Your task to perform on an android device: add a label to a message in the gmail app Image 0: 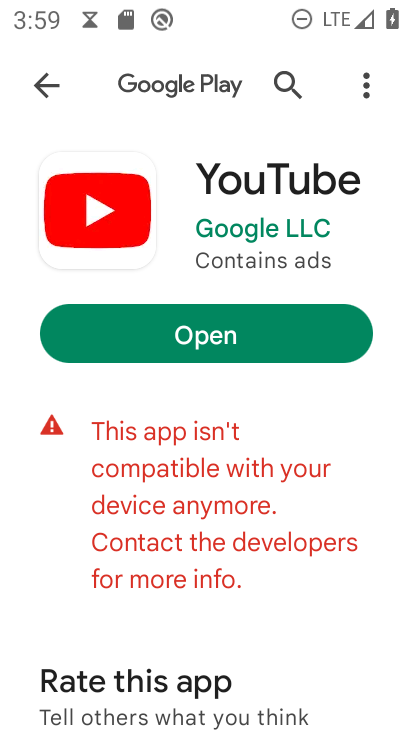
Step 0: press home button
Your task to perform on an android device: add a label to a message in the gmail app Image 1: 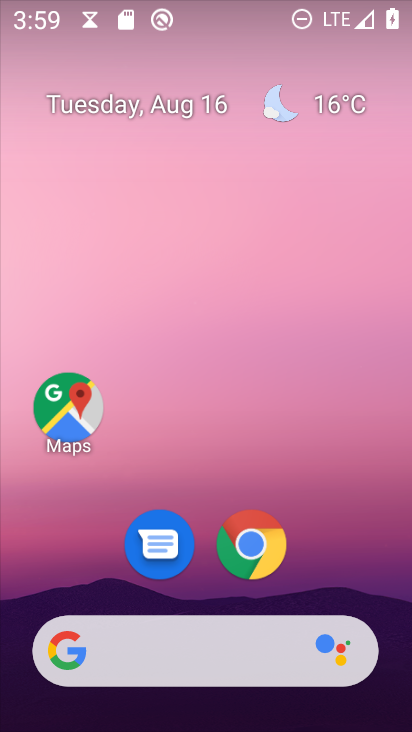
Step 1: drag from (187, 644) to (217, 123)
Your task to perform on an android device: add a label to a message in the gmail app Image 2: 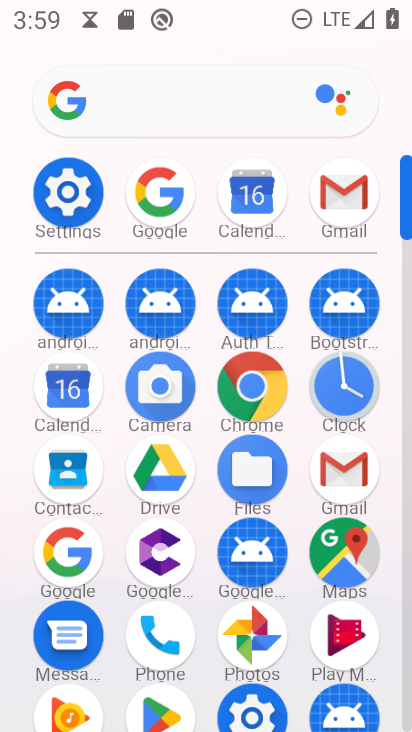
Step 2: click (341, 191)
Your task to perform on an android device: add a label to a message in the gmail app Image 3: 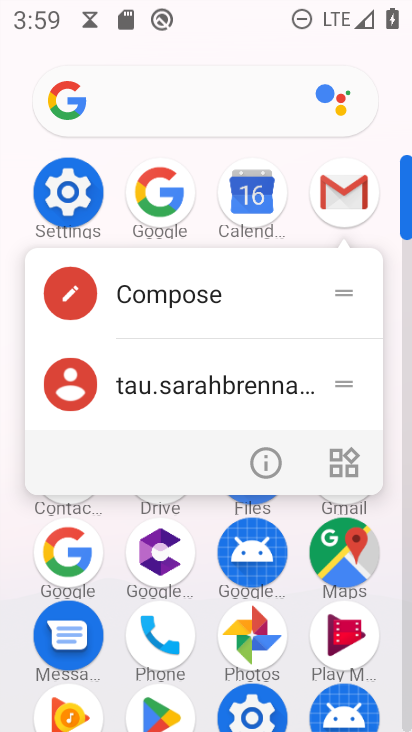
Step 3: click (341, 191)
Your task to perform on an android device: add a label to a message in the gmail app Image 4: 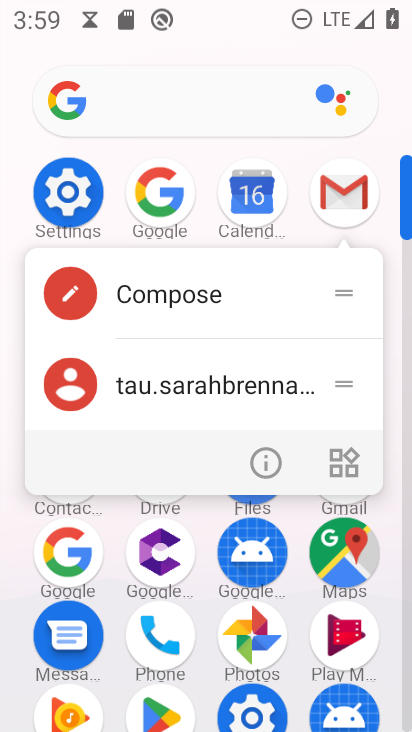
Step 4: click (341, 191)
Your task to perform on an android device: add a label to a message in the gmail app Image 5: 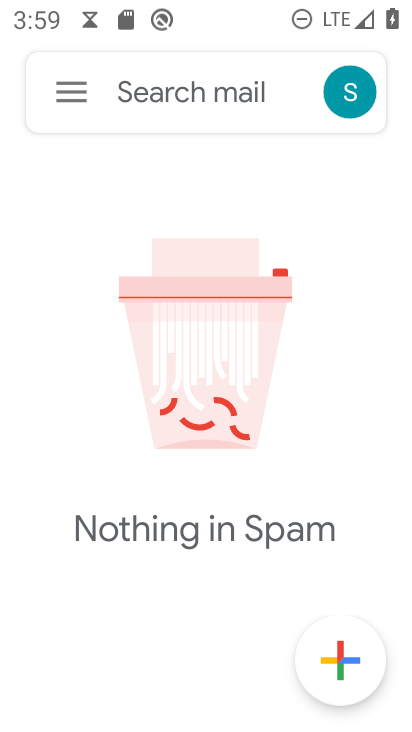
Step 5: click (80, 97)
Your task to perform on an android device: add a label to a message in the gmail app Image 6: 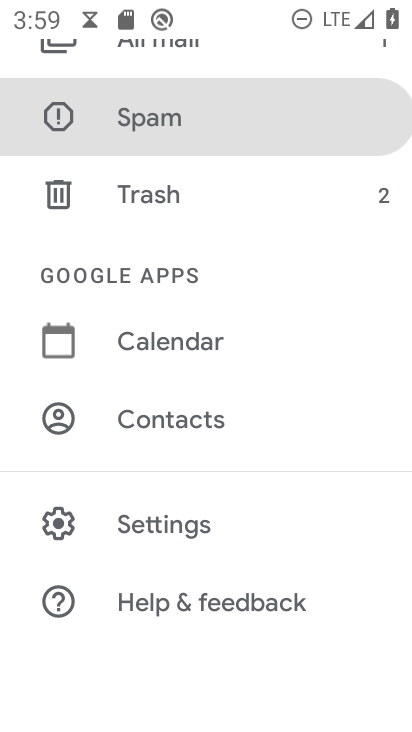
Step 6: drag from (221, 211) to (213, 318)
Your task to perform on an android device: add a label to a message in the gmail app Image 7: 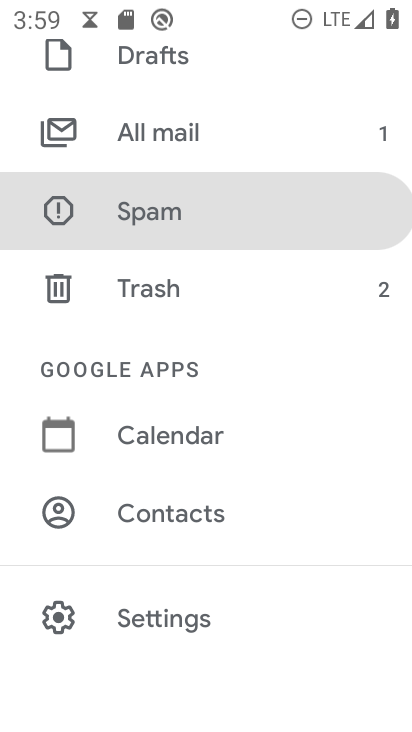
Step 7: click (229, 126)
Your task to perform on an android device: add a label to a message in the gmail app Image 8: 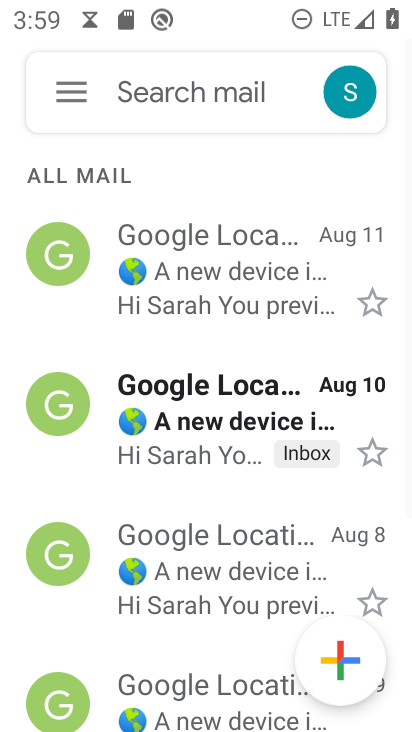
Step 8: click (222, 288)
Your task to perform on an android device: add a label to a message in the gmail app Image 9: 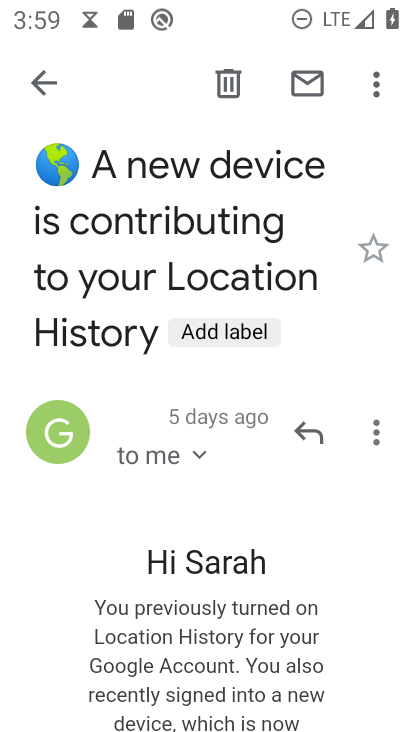
Step 9: task complete